Your task to perform on an android device: toggle wifi Image 0: 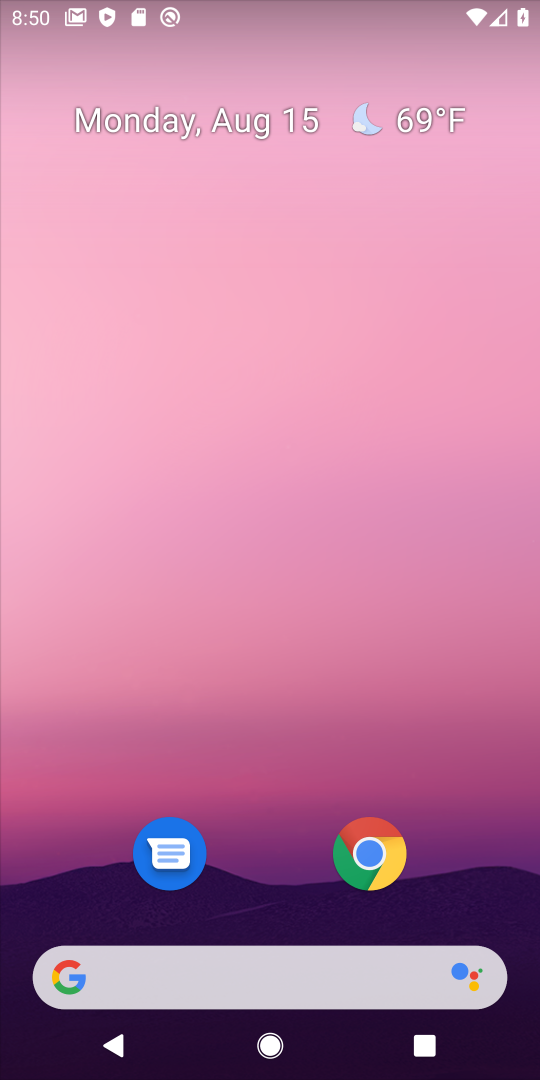
Step 0: drag from (240, 0) to (279, 854)
Your task to perform on an android device: toggle wifi Image 1: 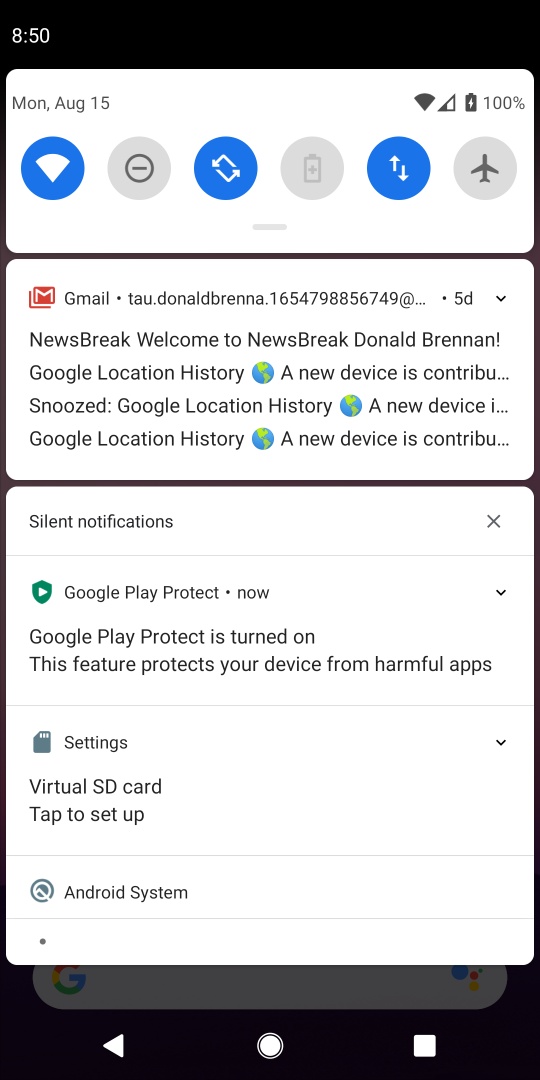
Step 1: click (44, 156)
Your task to perform on an android device: toggle wifi Image 2: 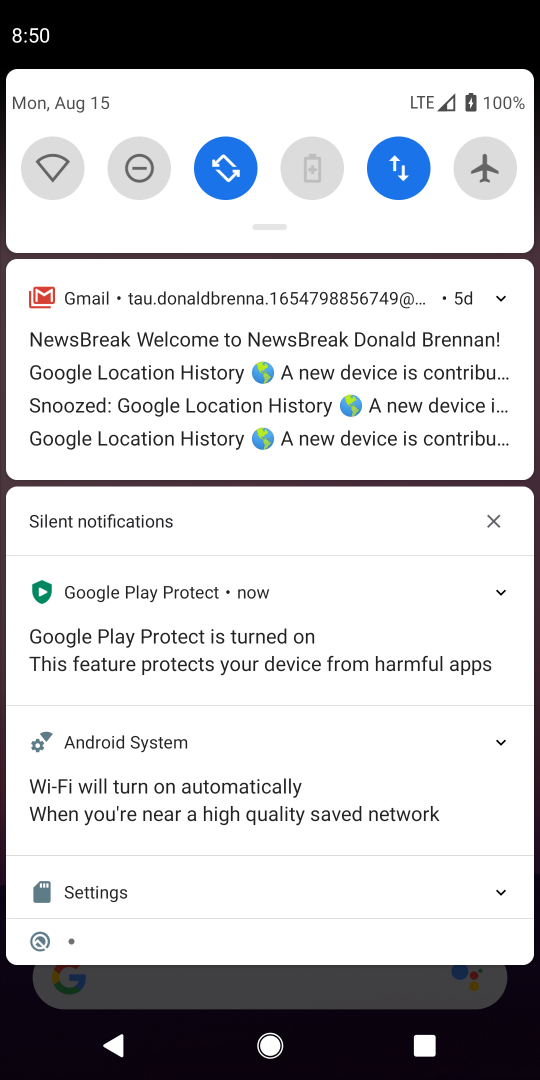
Step 2: task complete